Your task to perform on an android device: Open Youtube and go to the subscriptions tab Image 0: 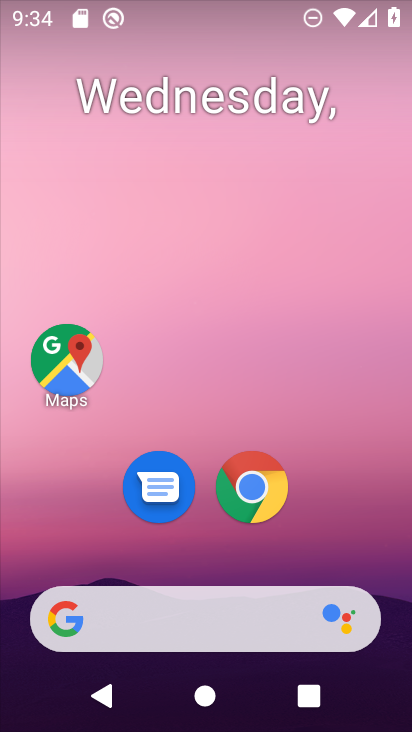
Step 0: drag from (266, 646) to (219, 282)
Your task to perform on an android device: Open Youtube and go to the subscriptions tab Image 1: 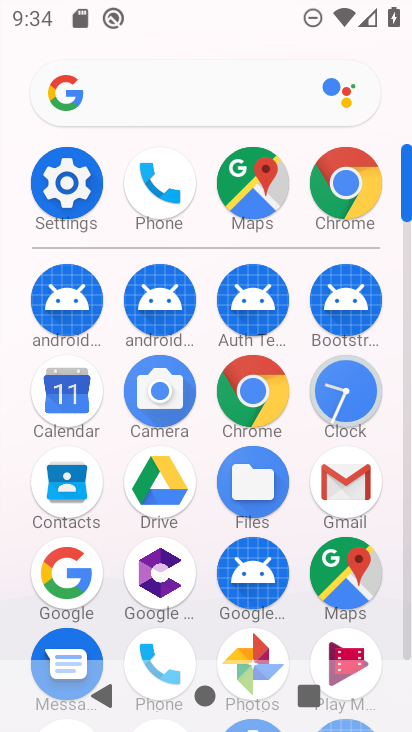
Step 1: drag from (107, 448) to (106, 283)
Your task to perform on an android device: Open Youtube and go to the subscriptions tab Image 2: 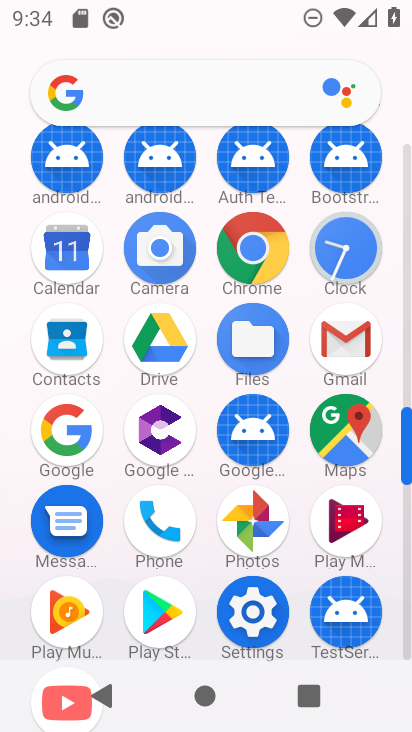
Step 2: drag from (113, 448) to (54, 286)
Your task to perform on an android device: Open Youtube and go to the subscriptions tab Image 3: 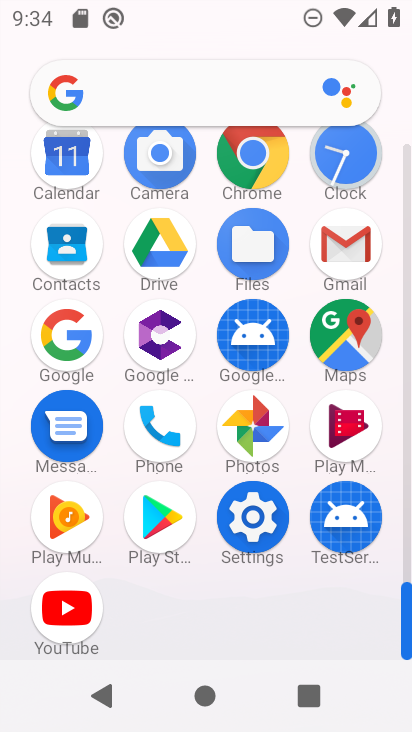
Step 3: click (58, 598)
Your task to perform on an android device: Open Youtube and go to the subscriptions tab Image 4: 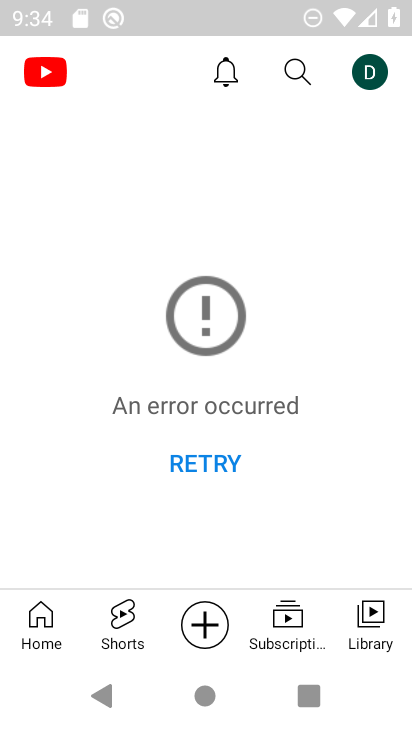
Step 4: click (274, 628)
Your task to perform on an android device: Open Youtube and go to the subscriptions tab Image 5: 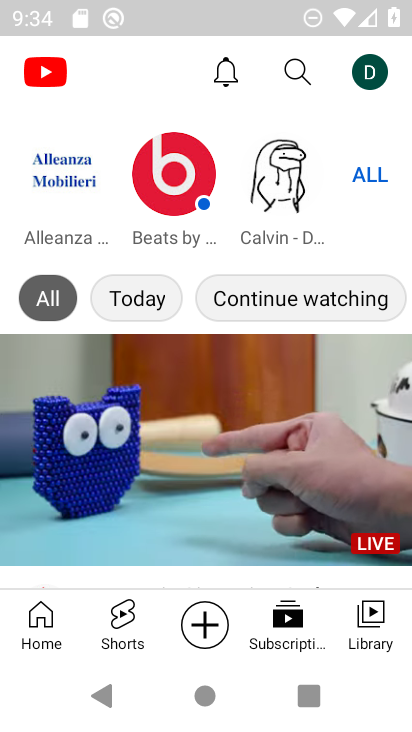
Step 5: task complete